Your task to perform on an android device: Is it going to rain this weekend? Image 0: 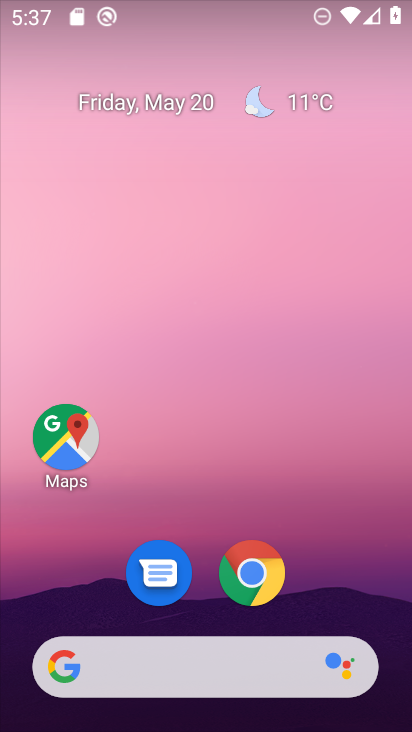
Step 0: press home button
Your task to perform on an android device: Is it going to rain this weekend? Image 1: 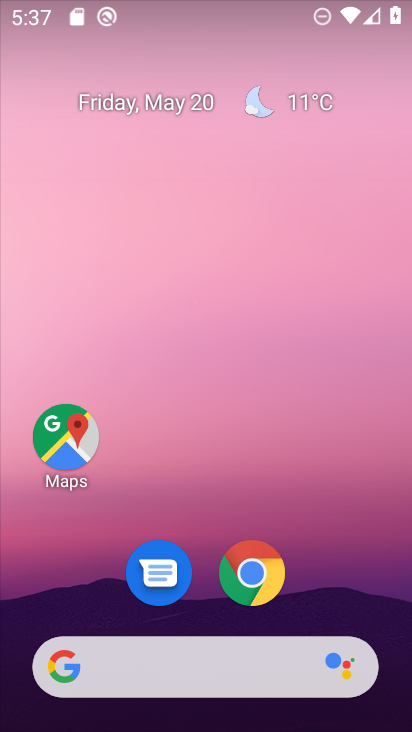
Step 1: drag from (332, 572) to (186, 97)
Your task to perform on an android device: Is it going to rain this weekend? Image 2: 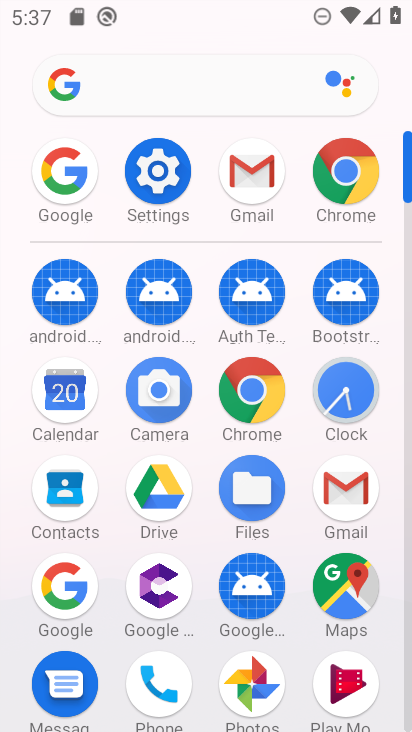
Step 2: click (75, 586)
Your task to perform on an android device: Is it going to rain this weekend? Image 3: 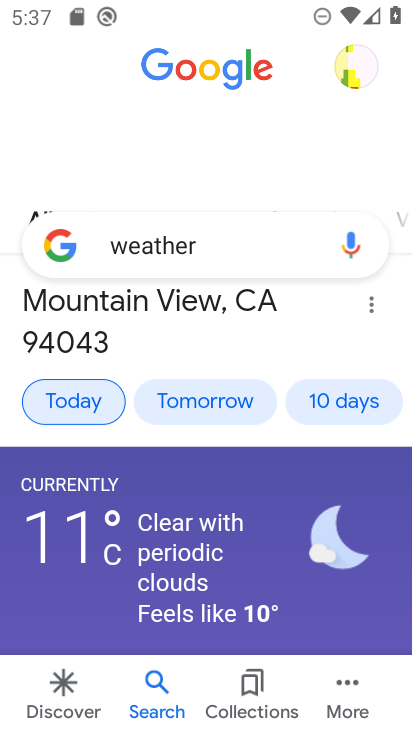
Step 3: click (237, 397)
Your task to perform on an android device: Is it going to rain this weekend? Image 4: 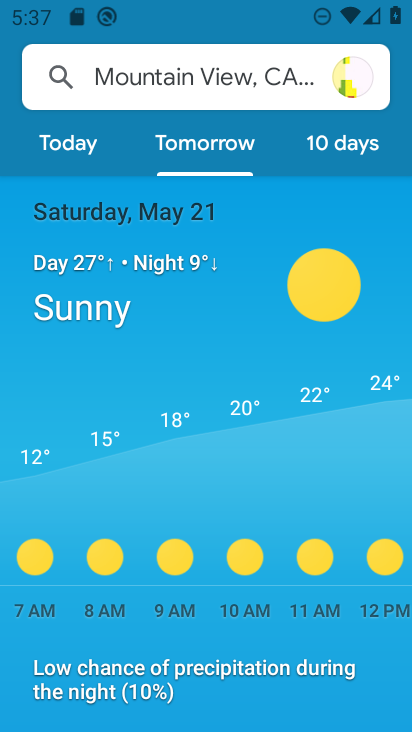
Step 4: click (366, 140)
Your task to perform on an android device: Is it going to rain this weekend? Image 5: 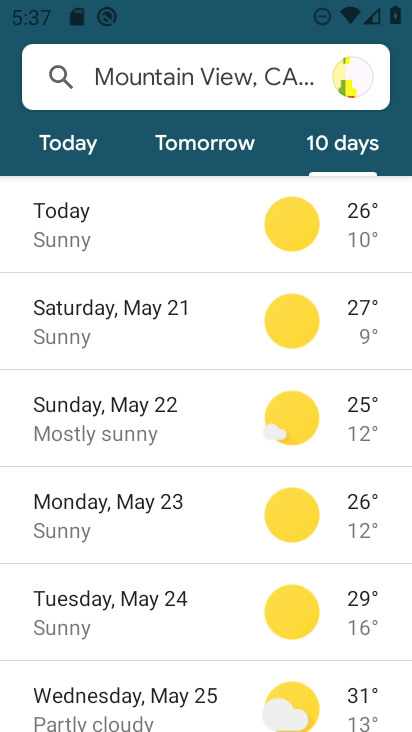
Step 5: task complete